Your task to perform on an android device: When is my next appointment? Image 0: 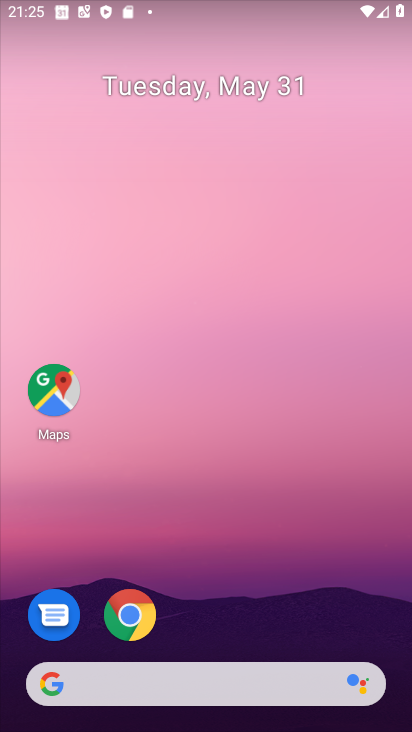
Step 0: drag from (269, 627) to (260, 114)
Your task to perform on an android device: When is my next appointment? Image 1: 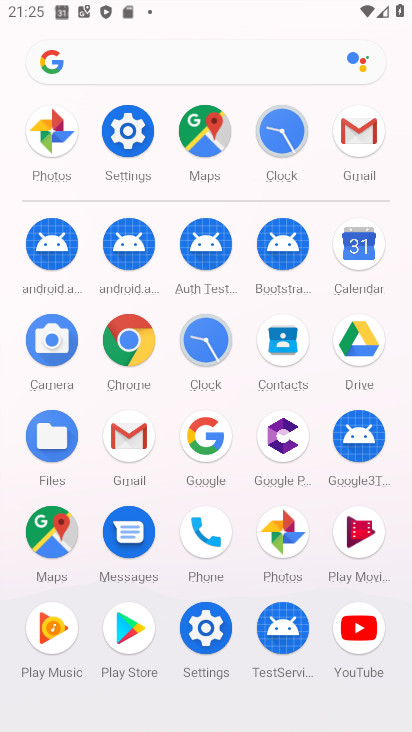
Step 1: click (349, 255)
Your task to perform on an android device: When is my next appointment? Image 2: 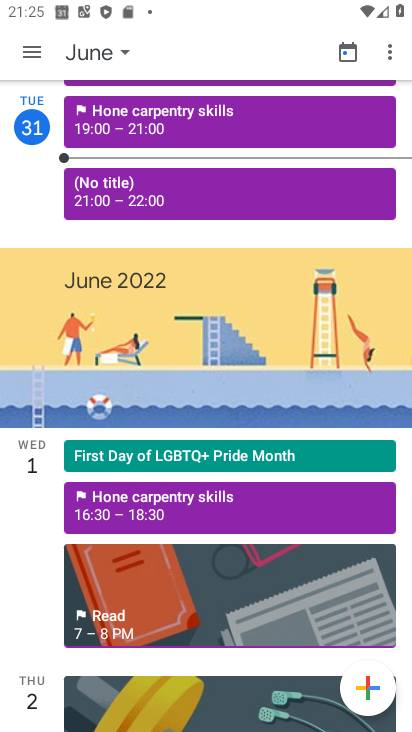
Step 2: click (39, 52)
Your task to perform on an android device: When is my next appointment? Image 3: 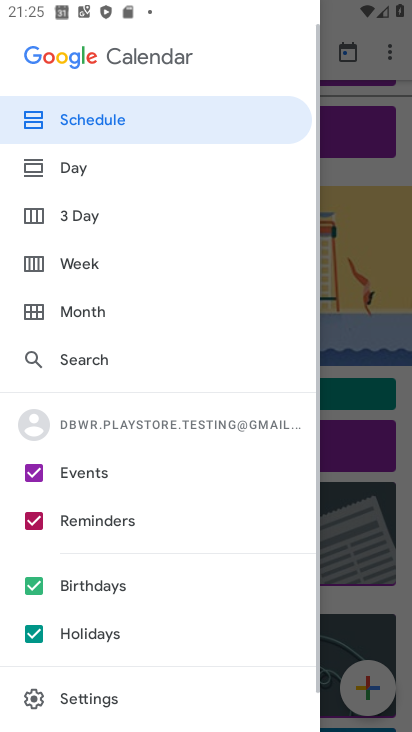
Step 3: click (97, 121)
Your task to perform on an android device: When is my next appointment? Image 4: 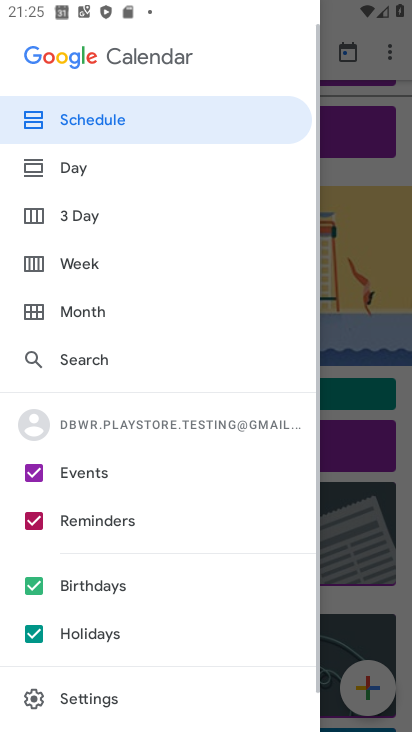
Step 4: click (175, 120)
Your task to perform on an android device: When is my next appointment? Image 5: 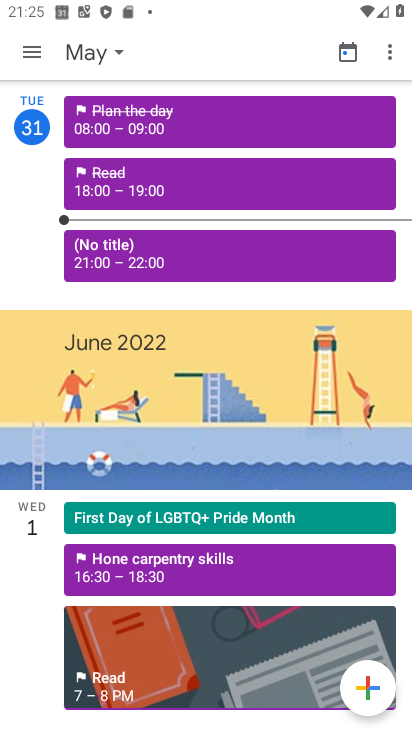
Step 5: task complete